Your task to perform on an android device: turn on sleep mode Image 0: 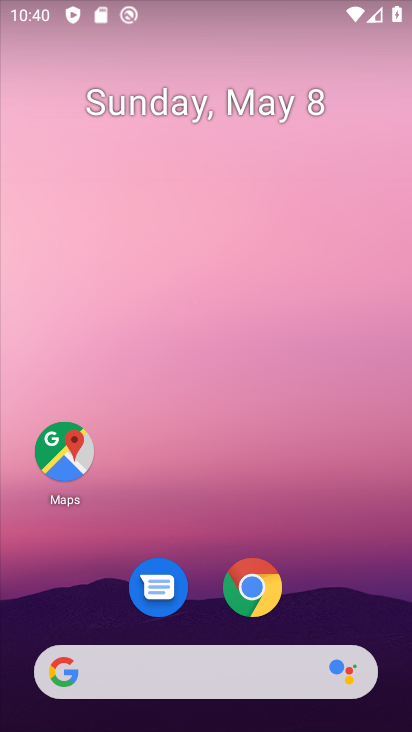
Step 0: drag from (401, 675) to (214, 236)
Your task to perform on an android device: turn on sleep mode Image 1: 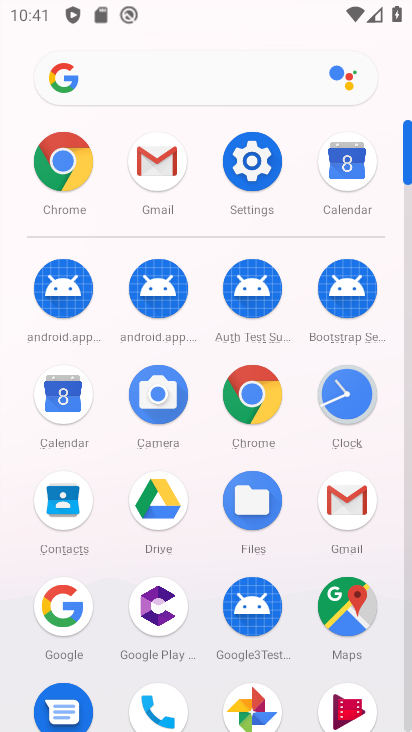
Step 1: click (250, 159)
Your task to perform on an android device: turn on sleep mode Image 2: 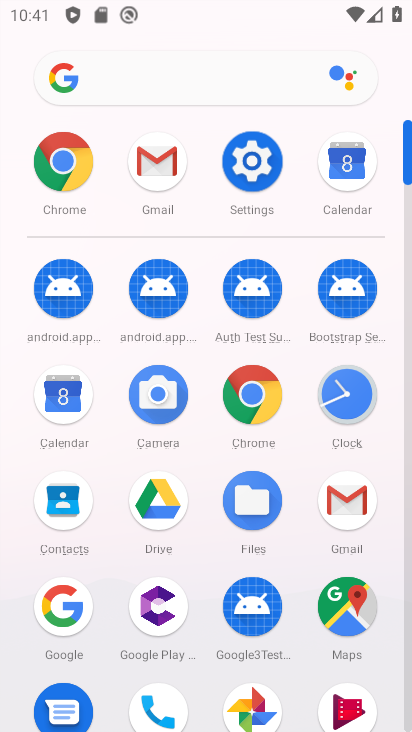
Step 2: click (250, 159)
Your task to perform on an android device: turn on sleep mode Image 3: 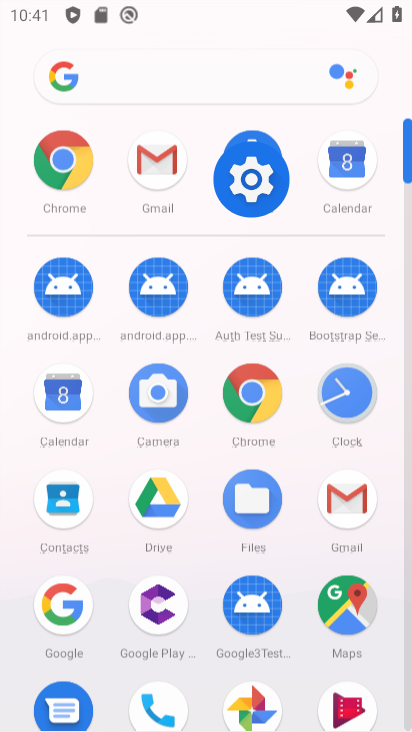
Step 3: click (250, 159)
Your task to perform on an android device: turn on sleep mode Image 4: 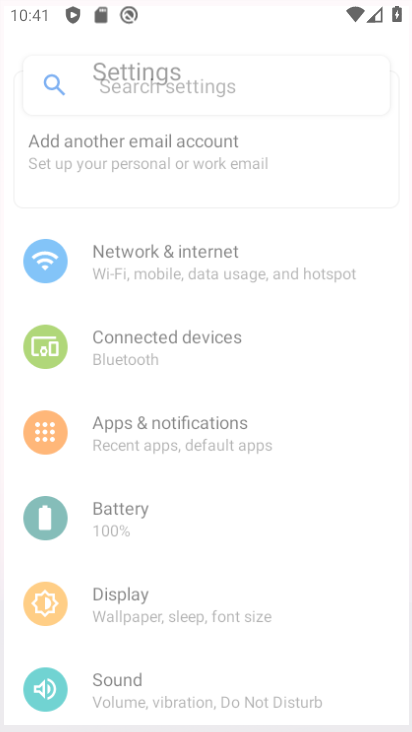
Step 4: click (250, 159)
Your task to perform on an android device: turn on sleep mode Image 5: 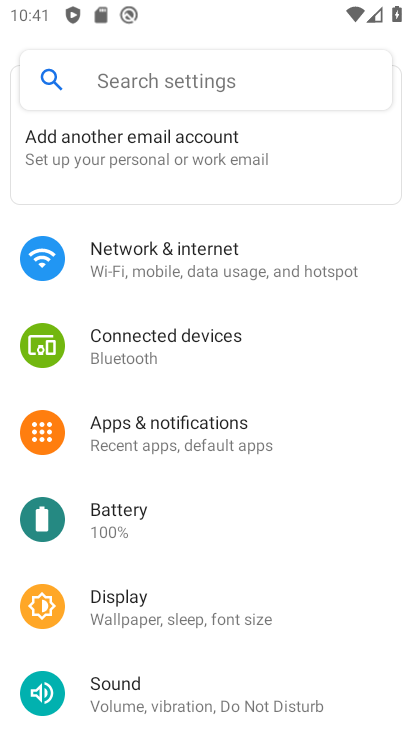
Step 5: task complete